Your task to perform on an android device: Is it going to rain today? Image 0: 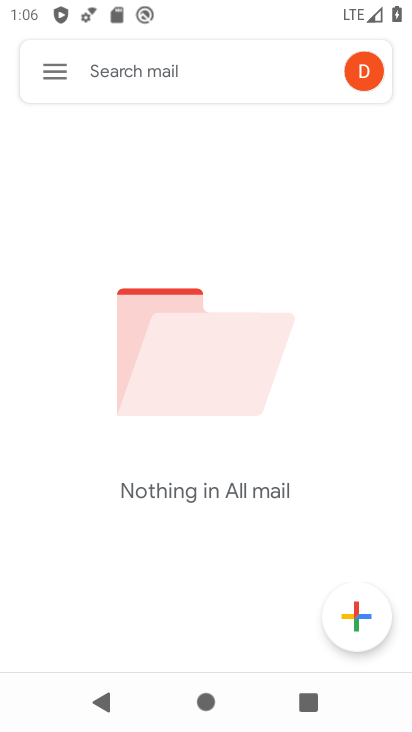
Step 0: press home button
Your task to perform on an android device: Is it going to rain today? Image 1: 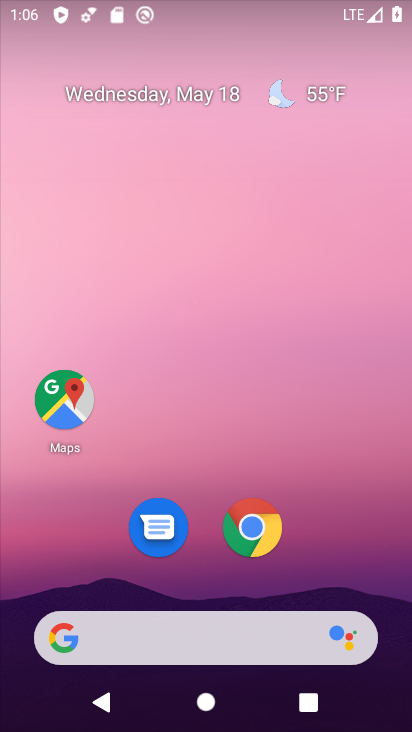
Step 1: click (316, 97)
Your task to perform on an android device: Is it going to rain today? Image 2: 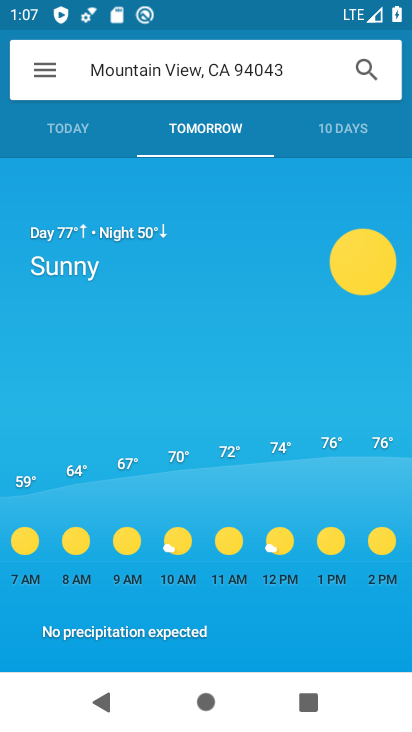
Step 2: click (56, 122)
Your task to perform on an android device: Is it going to rain today? Image 3: 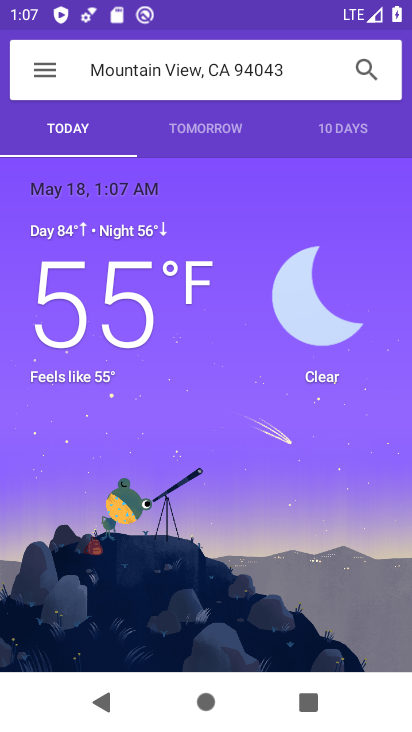
Step 3: task complete